Your task to perform on an android device: When is my next meeting? Image 0: 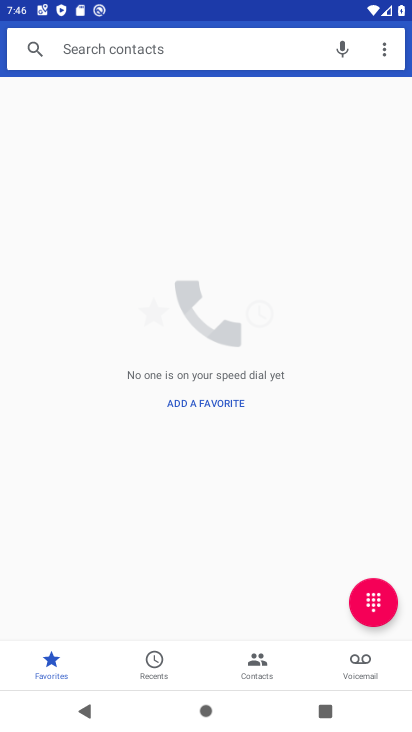
Step 0: press home button
Your task to perform on an android device: When is my next meeting? Image 1: 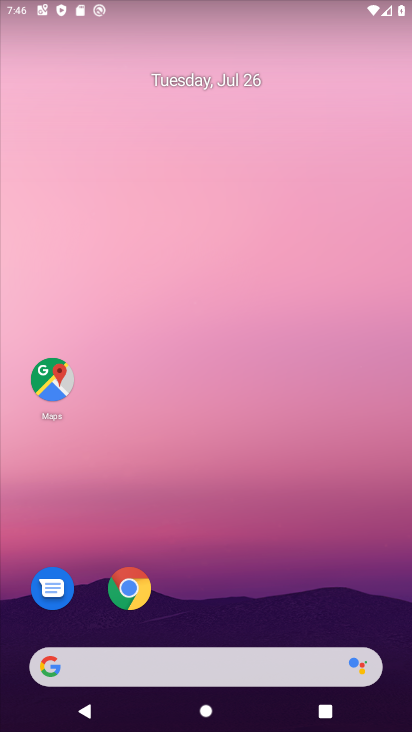
Step 1: drag from (245, 434) to (228, 200)
Your task to perform on an android device: When is my next meeting? Image 2: 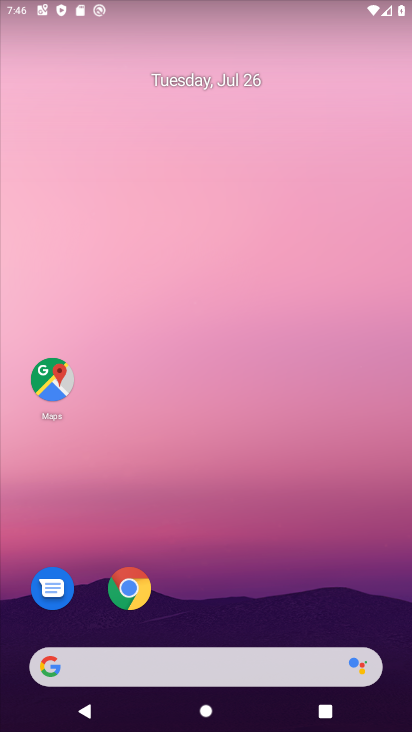
Step 2: drag from (269, 446) to (253, 202)
Your task to perform on an android device: When is my next meeting? Image 3: 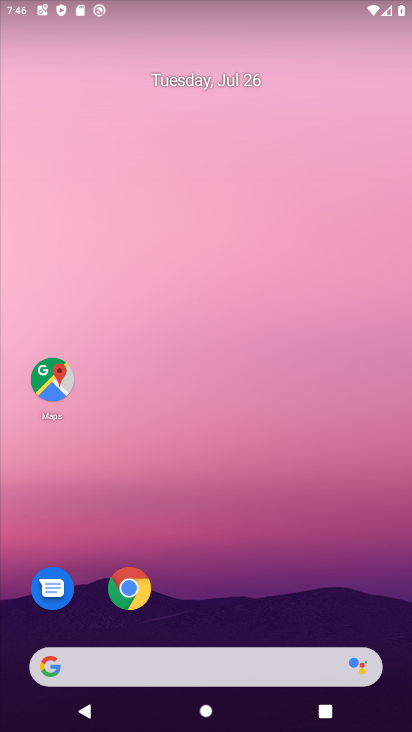
Step 3: drag from (265, 476) to (265, 212)
Your task to perform on an android device: When is my next meeting? Image 4: 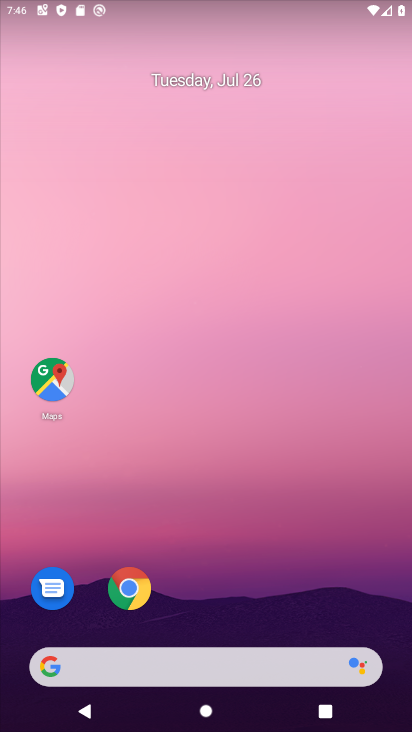
Step 4: drag from (300, 525) to (319, 91)
Your task to perform on an android device: When is my next meeting? Image 5: 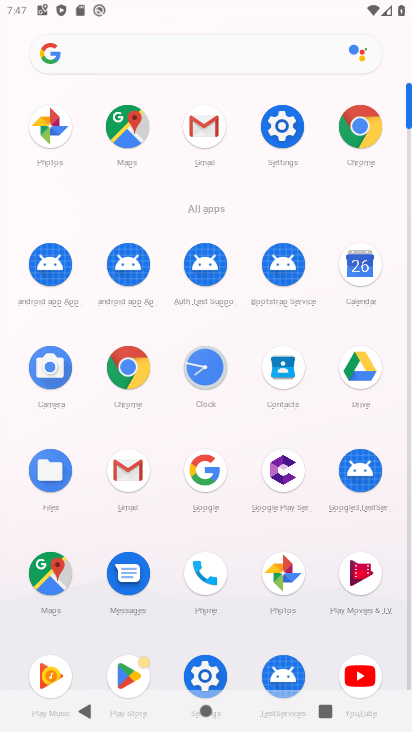
Step 5: click (354, 262)
Your task to perform on an android device: When is my next meeting? Image 6: 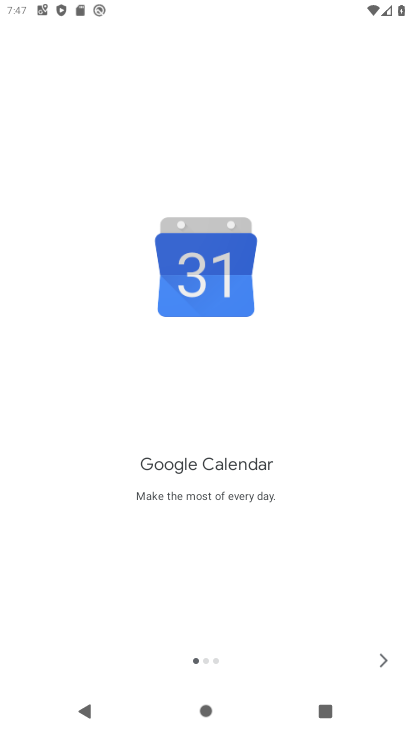
Step 6: click (380, 659)
Your task to perform on an android device: When is my next meeting? Image 7: 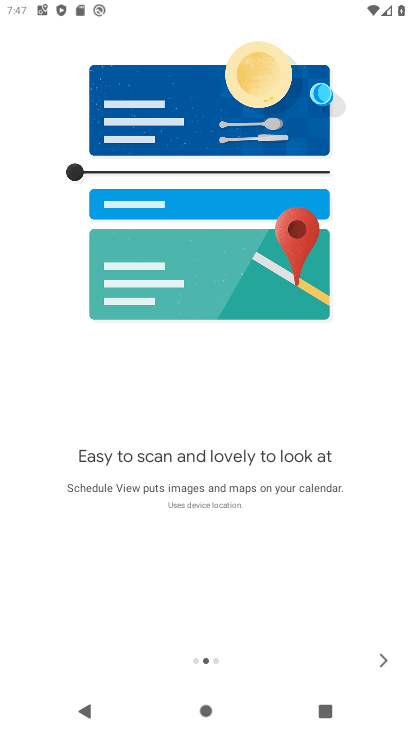
Step 7: click (380, 659)
Your task to perform on an android device: When is my next meeting? Image 8: 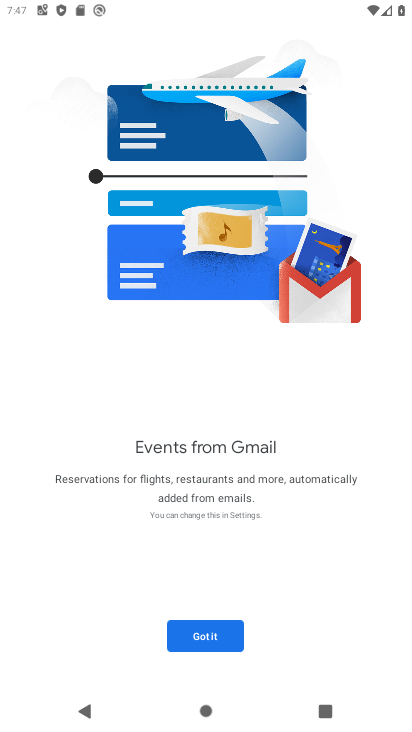
Step 8: click (211, 630)
Your task to perform on an android device: When is my next meeting? Image 9: 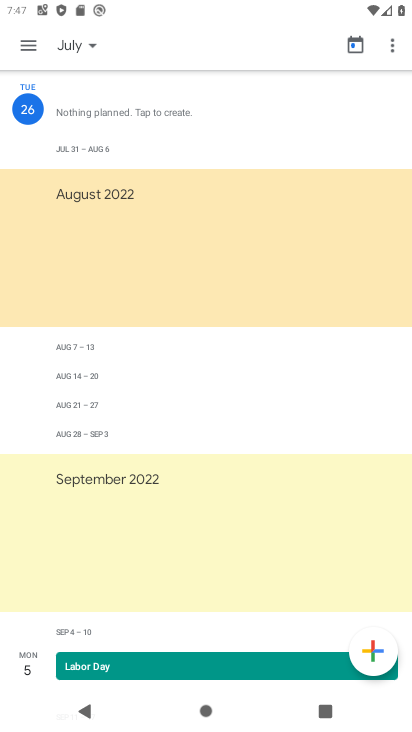
Step 9: task complete